Your task to perform on an android device: set the timer Image 0: 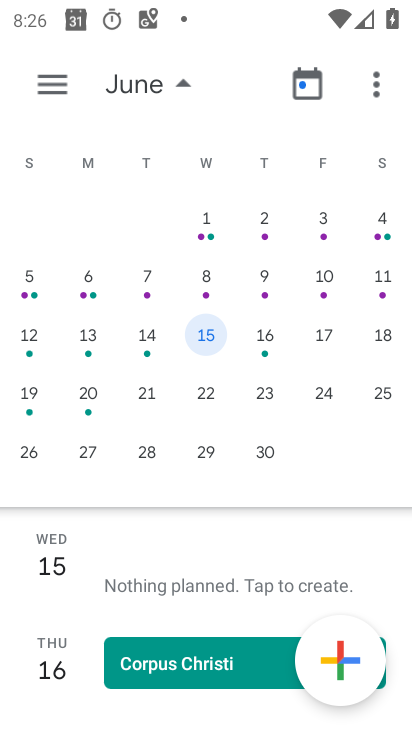
Step 0: press home button
Your task to perform on an android device: set the timer Image 1: 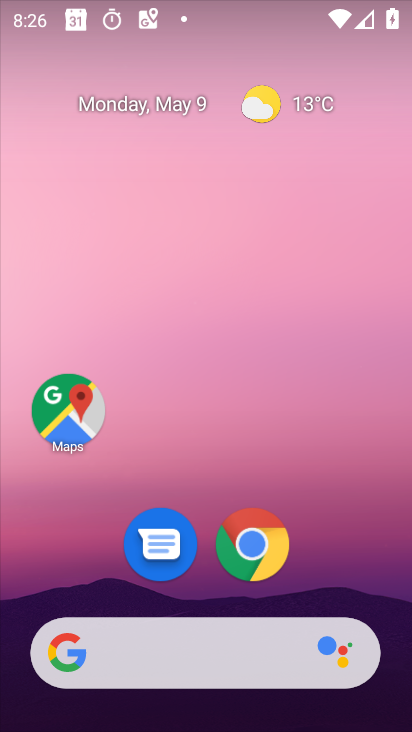
Step 1: drag from (353, 542) to (344, 95)
Your task to perform on an android device: set the timer Image 2: 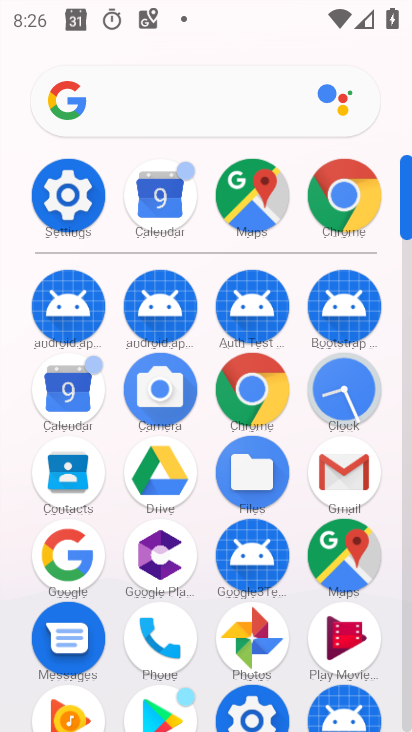
Step 2: click (354, 404)
Your task to perform on an android device: set the timer Image 3: 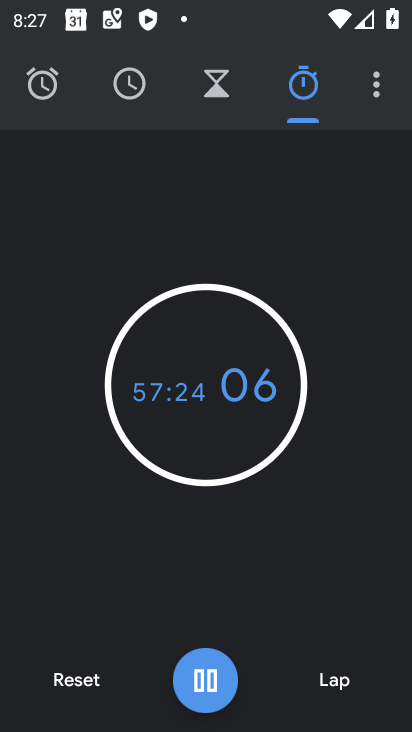
Step 3: click (217, 83)
Your task to perform on an android device: set the timer Image 4: 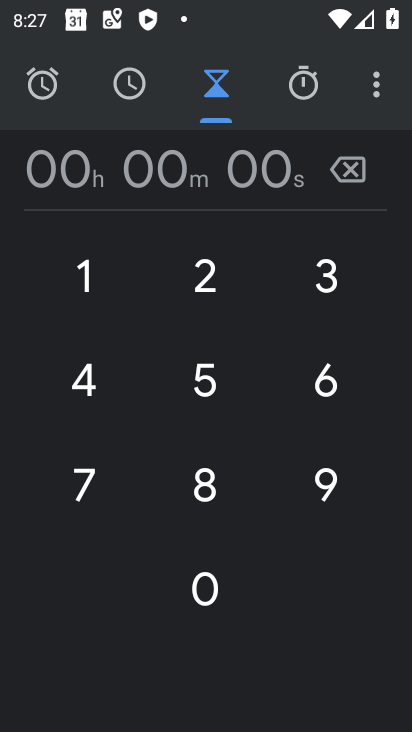
Step 4: click (193, 270)
Your task to perform on an android device: set the timer Image 5: 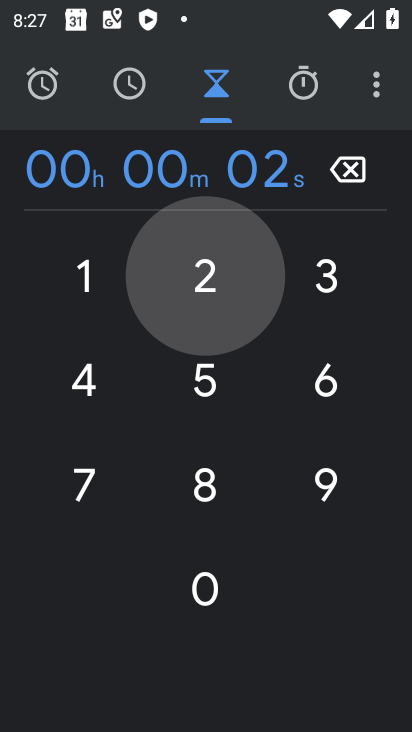
Step 5: click (213, 384)
Your task to perform on an android device: set the timer Image 6: 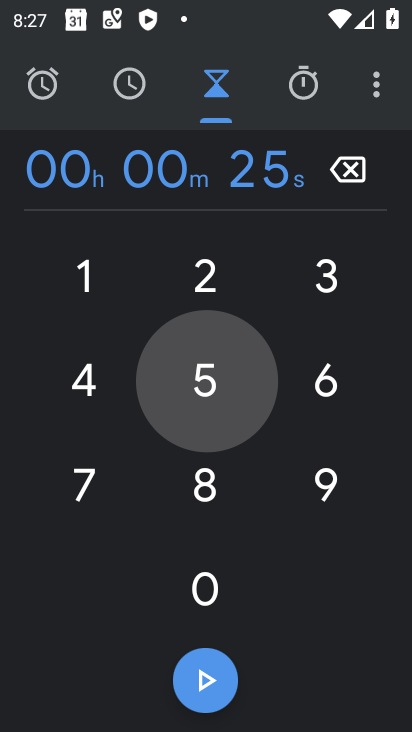
Step 6: click (228, 279)
Your task to perform on an android device: set the timer Image 7: 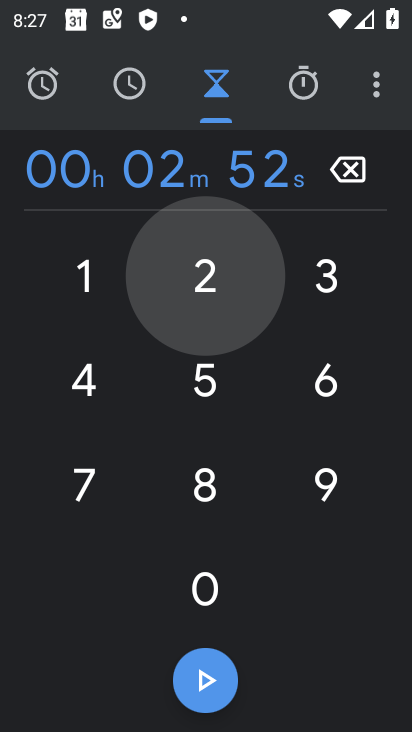
Step 7: click (223, 389)
Your task to perform on an android device: set the timer Image 8: 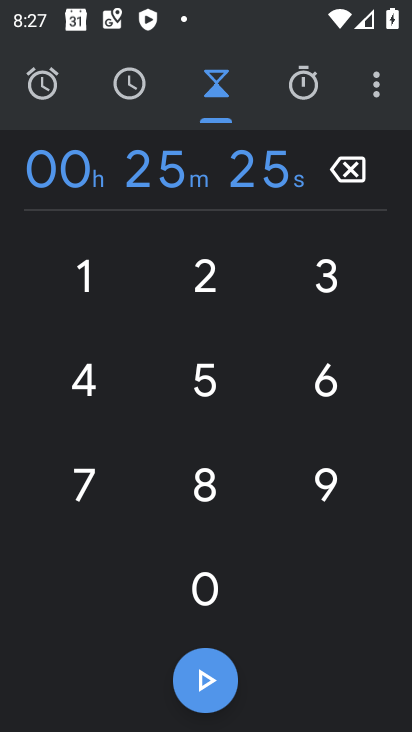
Step 8: click (222, 300)
Your task to perform on an android device: set the timer Image 9: 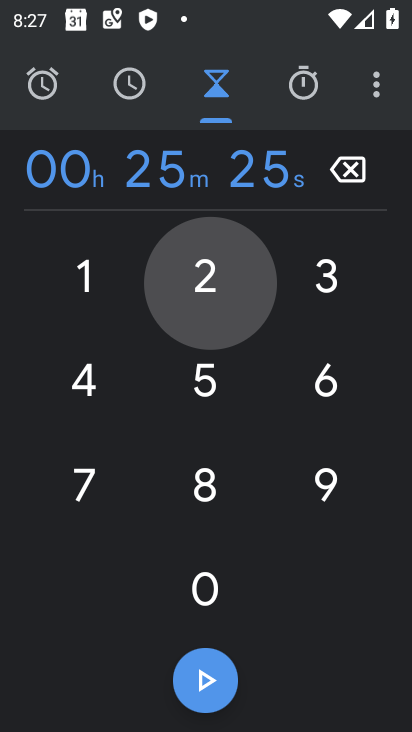
Step 9: click (240, 411)
Your task to perform on an android device: set the timer Image 10: 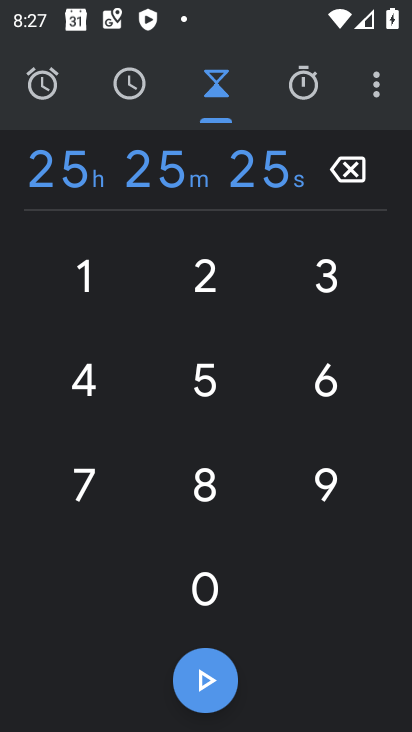
Step 10: click (208, 681)
Your task to perform on an android device: set the timer Image 11: 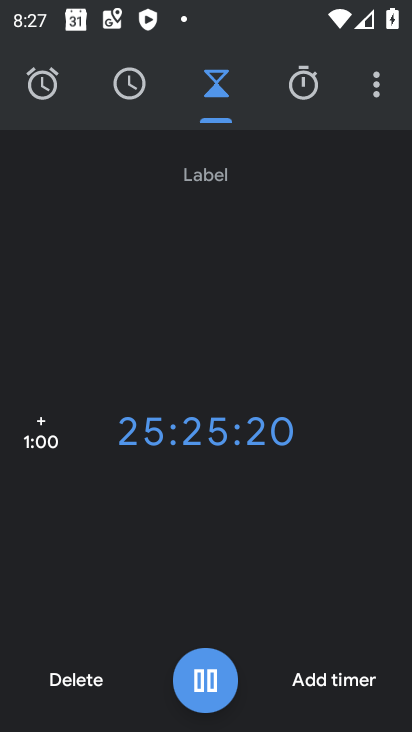
Step 11: task complete